Your task to perform on an android device: Open Youtube and go to the subscriptions tab Image 0: 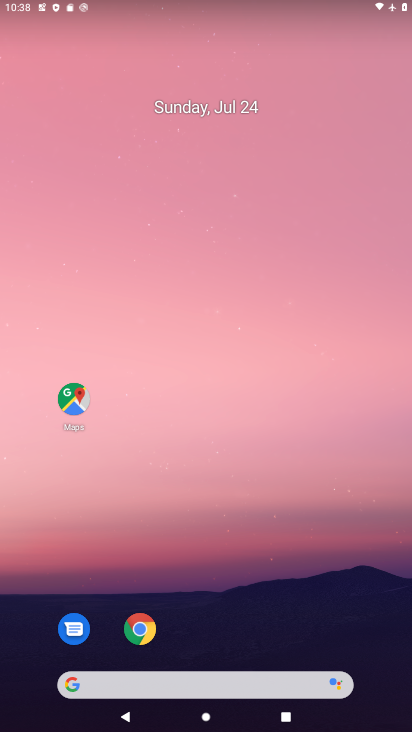
Step 0: drag from (239, 640) to (274, 121)
Your task to perform on an android device: Open Youtube and go to the subscriptions tab Image 1: 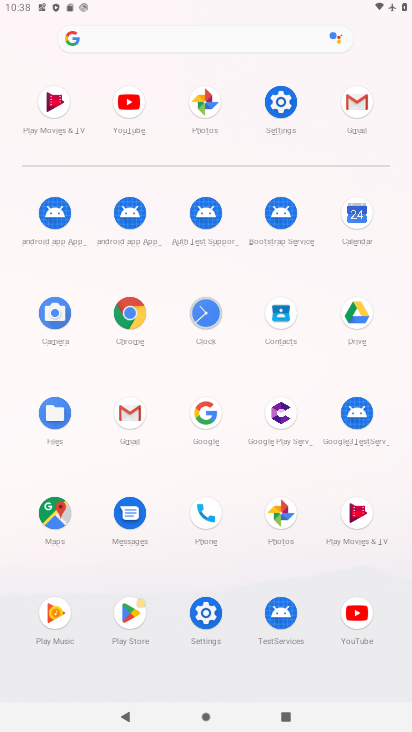
Step 1: click (365, 630)
Your task to perform on an android device: Open Youtube and go to the subscriptions tab Image 2: 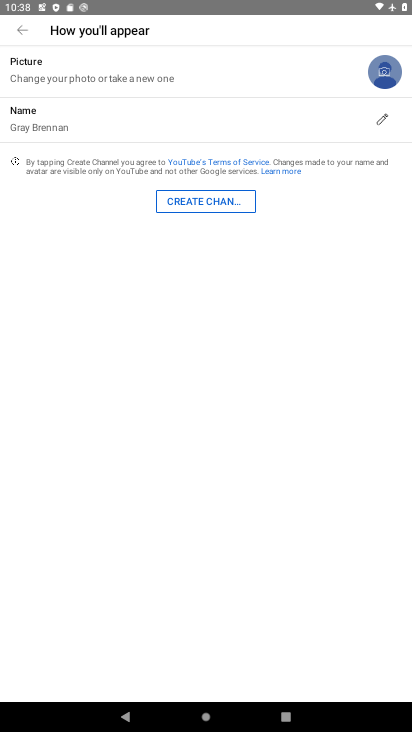
Step 2: task complete